Your task to perform on an android device: install app "Life360: Find Family & Friends" Image 0: 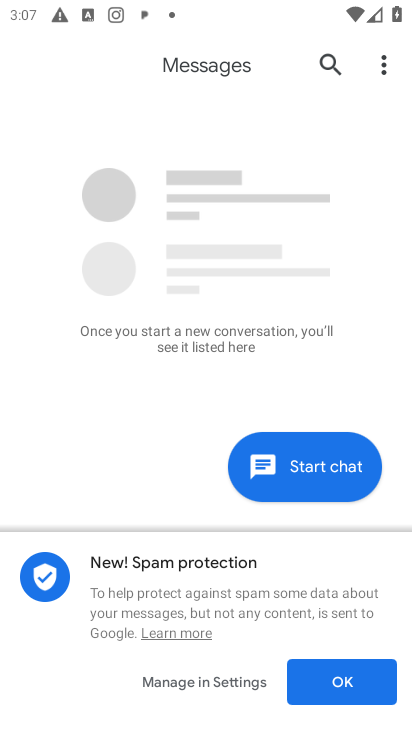
Step 0: press home button
Your task to perform on an android device: install app "Life360: Find Family & Friends" Image 1: 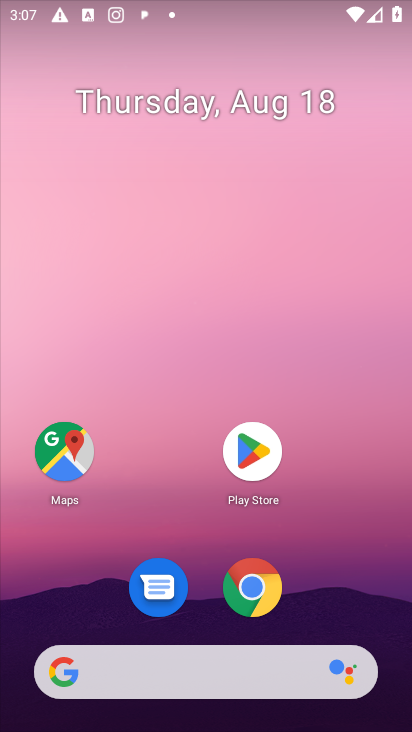
Step 1: click (249, 452)
Your task to perform on an android device: install app "Life360: Find Family & Friends" Image 2: 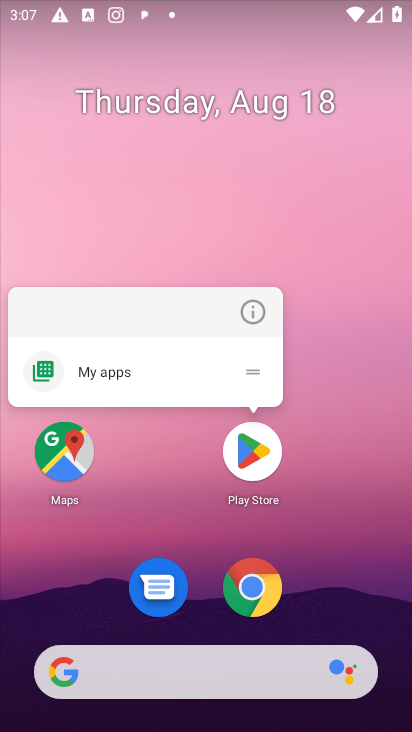
Step 2: click (249, 451)
Your task to perform on an android device: install app "Life360: Find Family & Friends" Image 3: 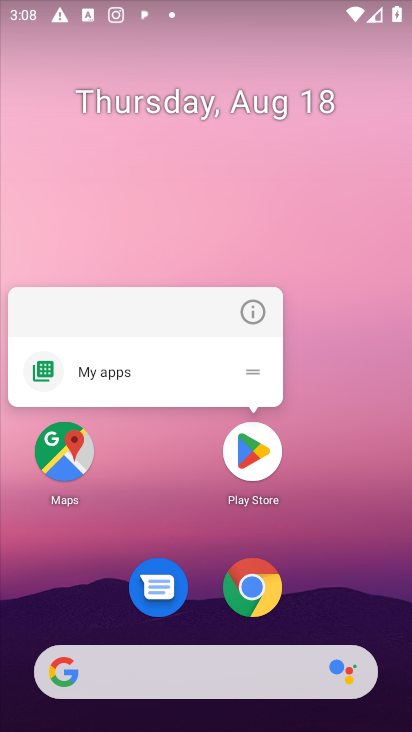
Step 3: click (249, 451)
Your task to perform on an android device: install app "Life360: Find Family & Friends" Image 4: 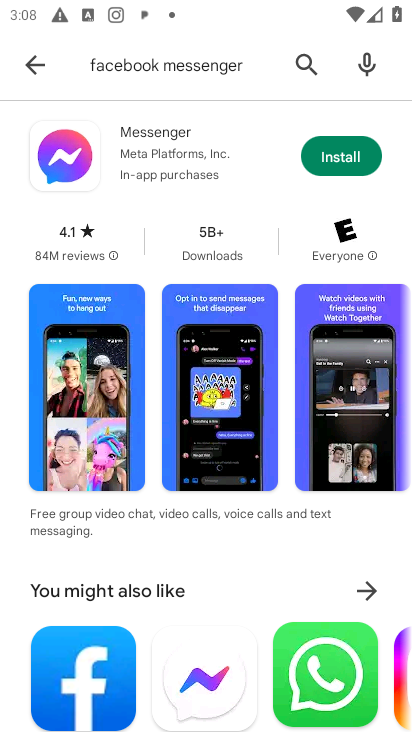
Step 4: click (303, 64)
Your task to perform on an android device: install app "Life360: Find Family & Friends" Image 5: 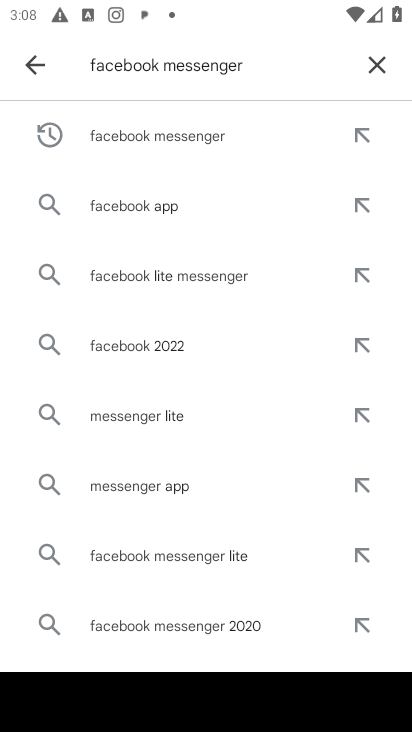
Step 5: click (369, 59)
Your task to perform on an android device: install app "Life360: Find Family & Friends" Image 6: 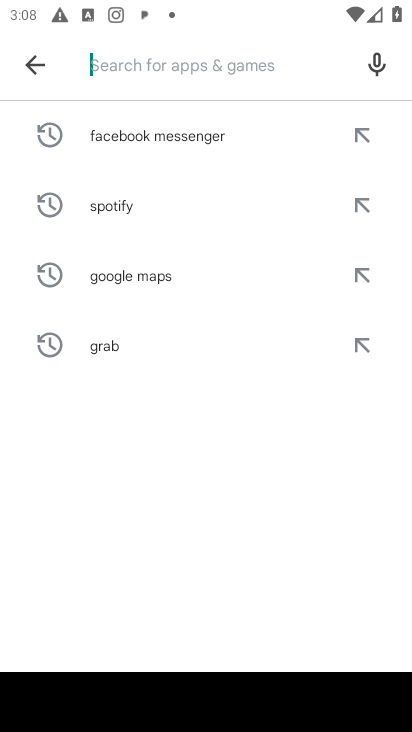
Step 6: type "Life360: Find Family & Friends"
Your task to perform on an android device: install app "Life360: Find Family & Friends" Image 7: 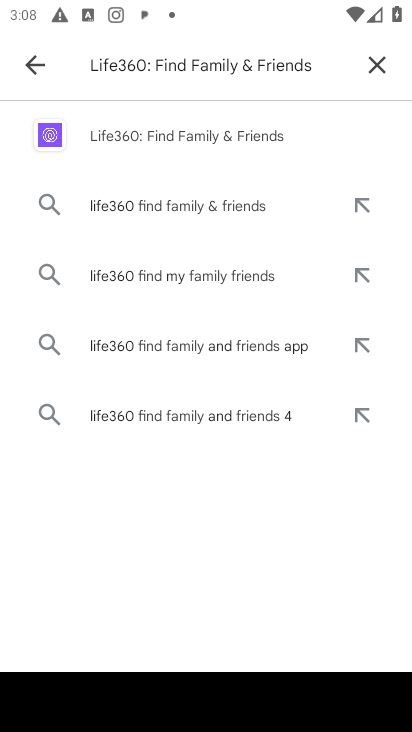
Step 7: click (243, 130)
Your task to perform on an android device: install app "Life360: Find Family & Friends" Image 8: 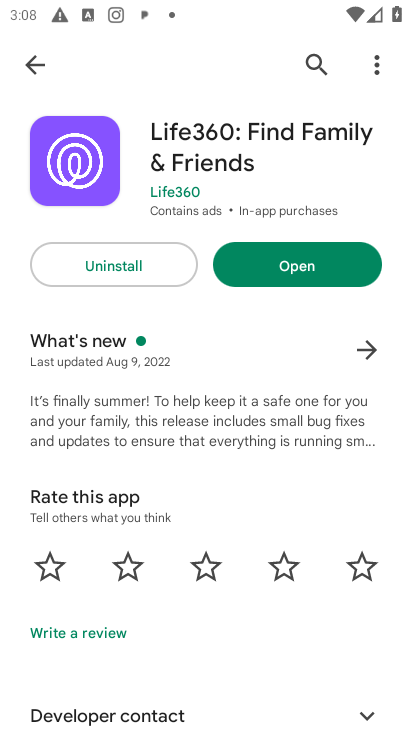
Step 8: task complete